Your task to perform on an android device: toggle show notifications on the lock screen Image 0: 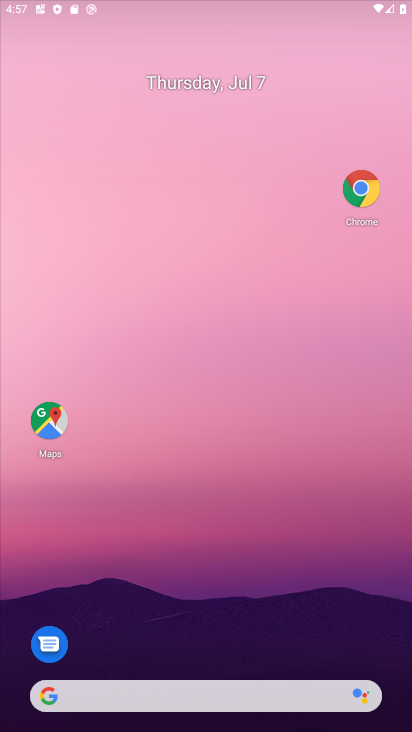
Step 0: press home button
Your task to perform on an android device: toggle show notifications on the lock screen Image 1: 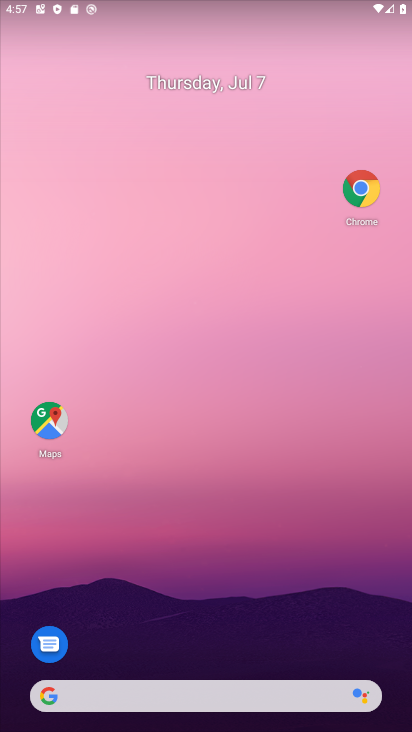
Step 1: click (267, 243)
Your task to perform on an android device: toggle show notifications on the lock screen Image 2: 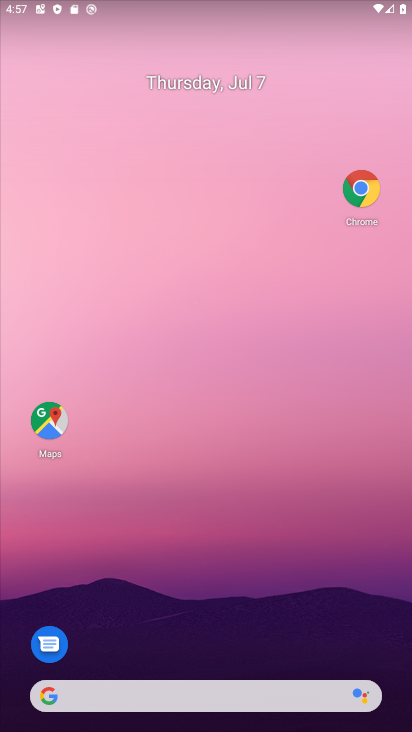
Step 2: drag from (310, 614) to (274, 1)
Your task to perform on an android device: toggle show notifications on the lock screen Image 3: 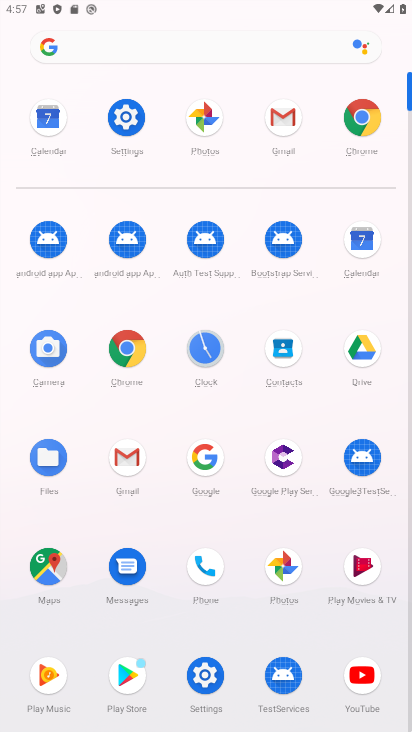
Step 3: click (118, 105)
Your task to perform on an android device: toggle show notifications on the lock screen Image 4: 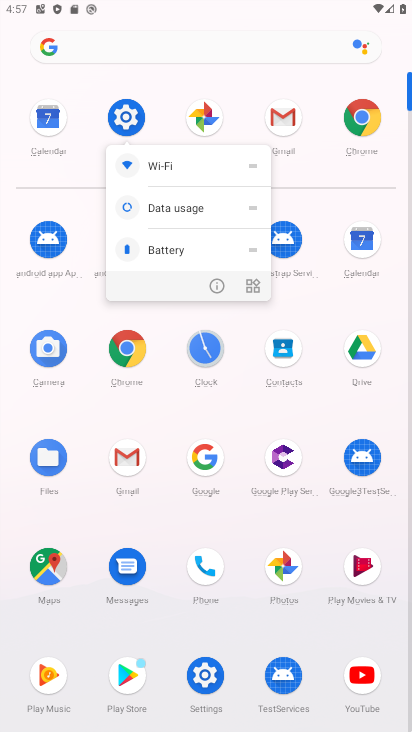
Step 4: click (130, 129)
Your task to perform on an android device: toggle show notifications on the lock screen Image 5: 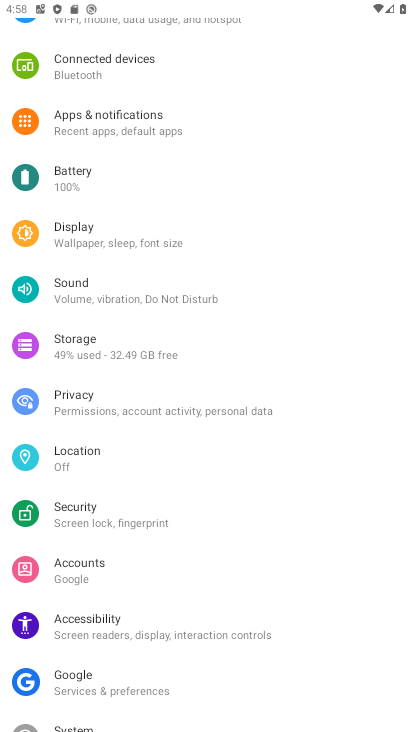
Step 5: click (121, 118)
Your task to perform on an android device: toggle show notifications on the lock screen Image 6: 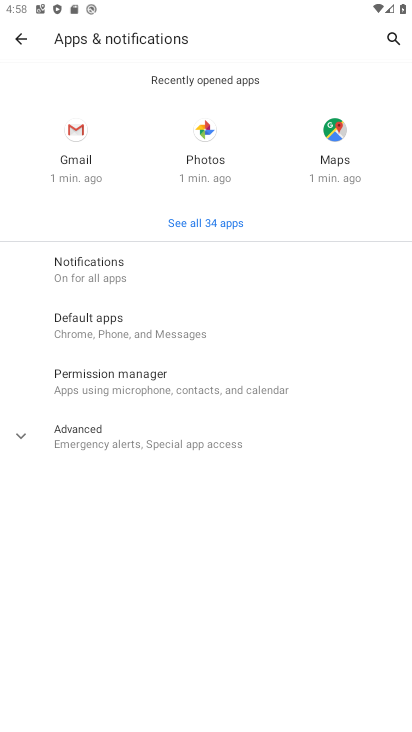
Step 6: click (98, 265)
Your task to perform on an android device: toggle show notifications on the lock screen Image 7: 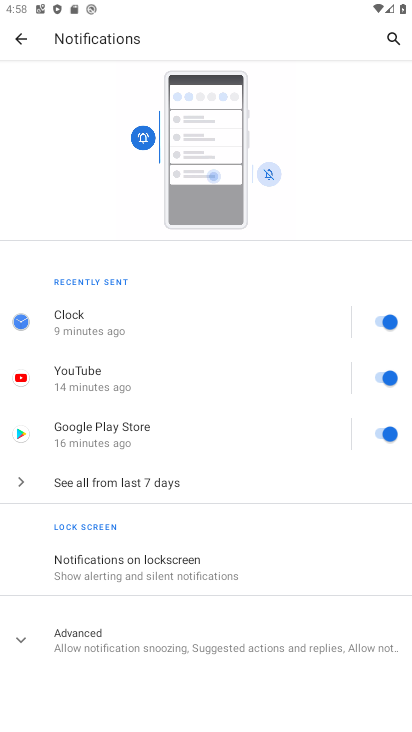
Step 7: click (106, 576)
Your task to perform on an android device: toggle show notifications on the lock screen Image 8: 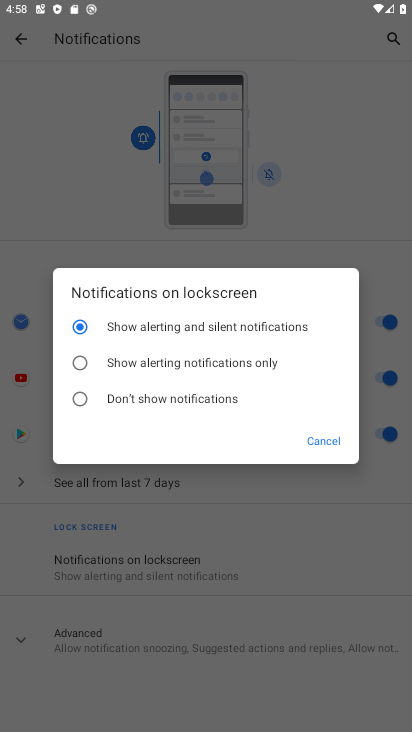
Step 8: click (199, 401)
Your task to perform on an android device: toggle show notifications on the lock screen Image 9: 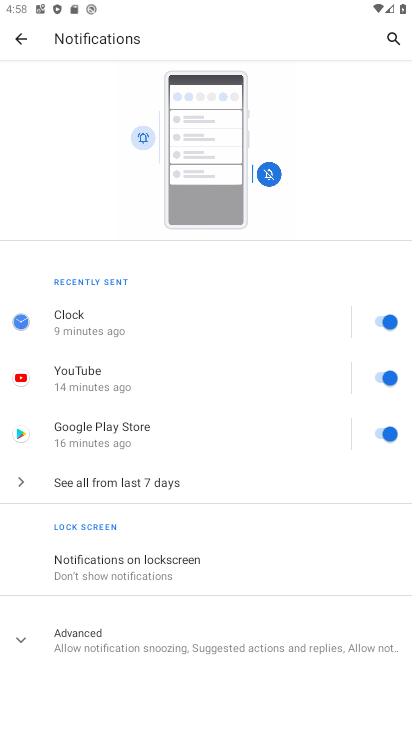
Step 9: task complete